Your task to perform on an android device: turn on javascript in the chrome app Image 0: 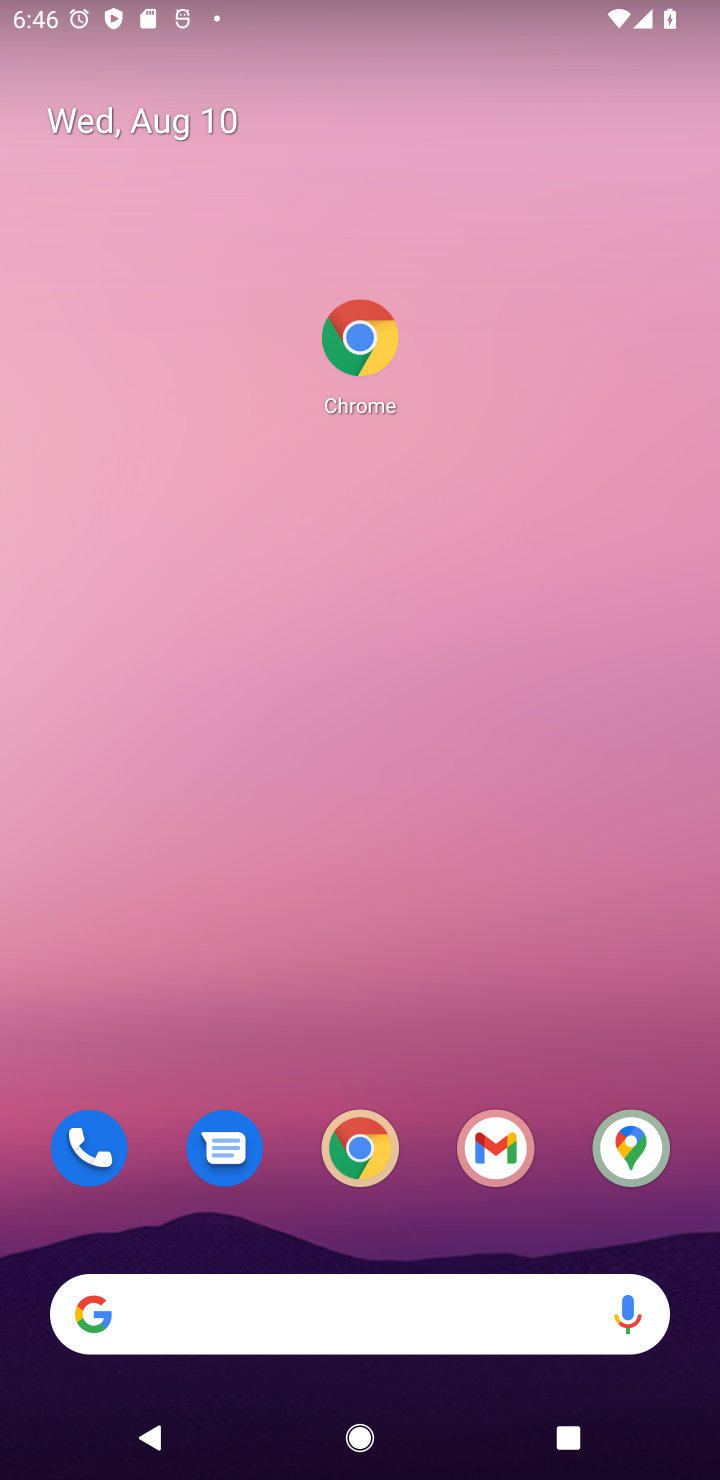
Step 0: click (372, 1136)
Your task to perform on an android device: turn on javascript in the chrome app Image 1: 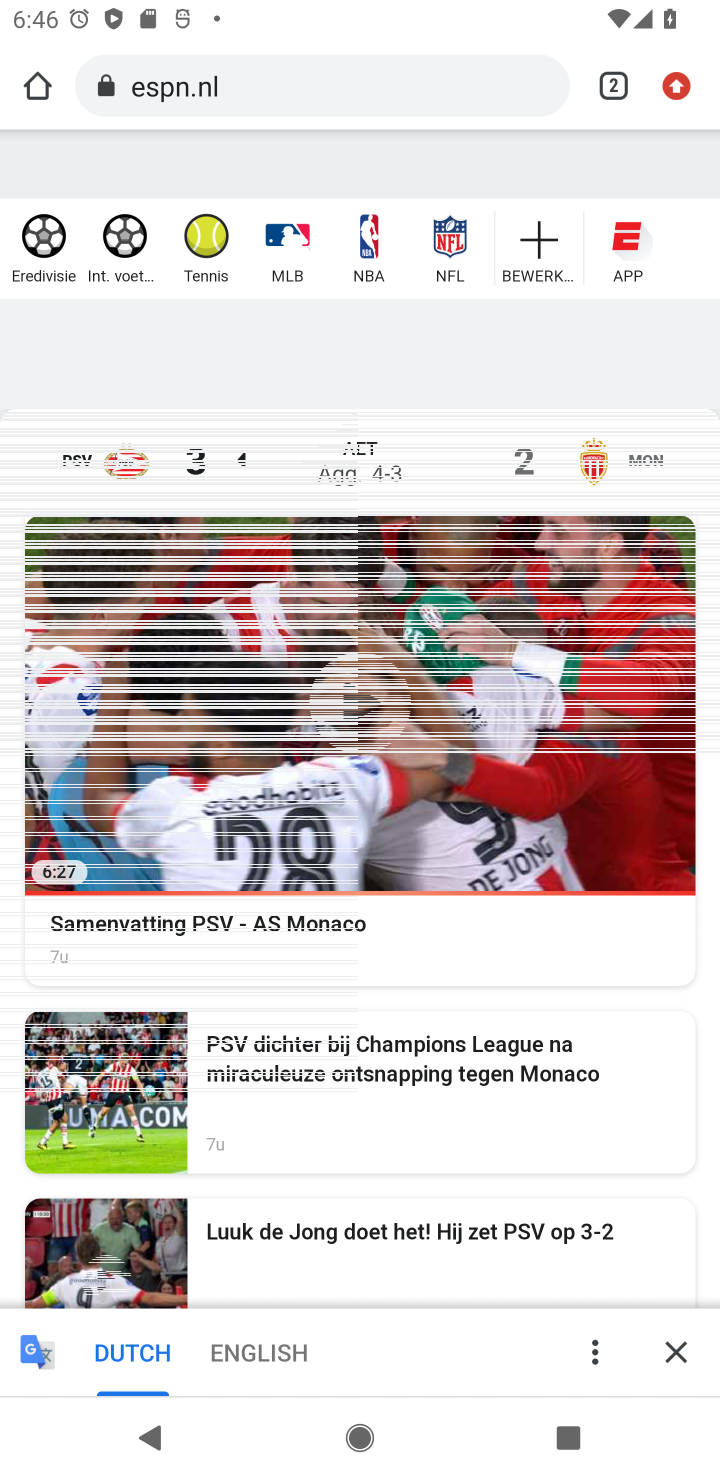
Step 1: click (669, 87)
Your task to perform on an android device: turn on javascript in the chrome app Image 2: 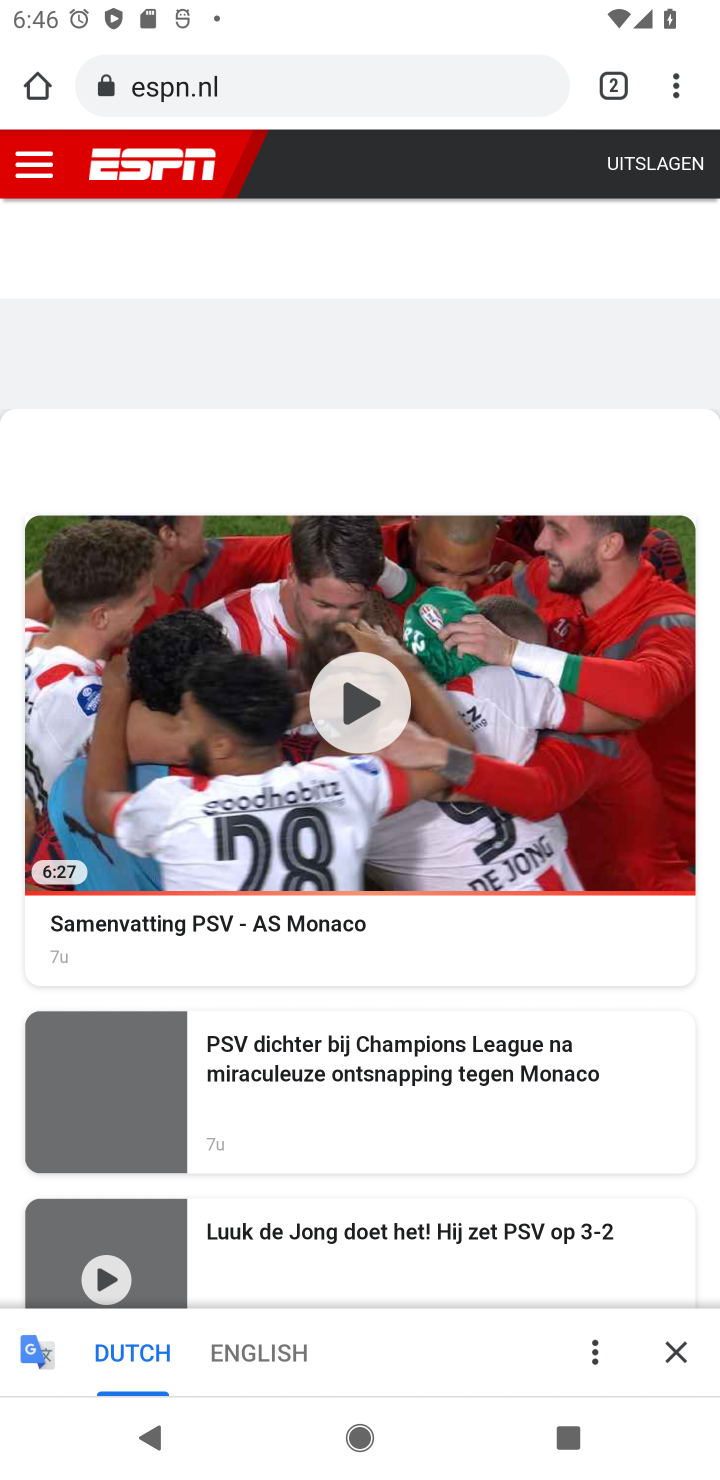
Step 2: click (669, 87)
Your task to perform on an android device: turn on javascript in the chrome app Image 3: 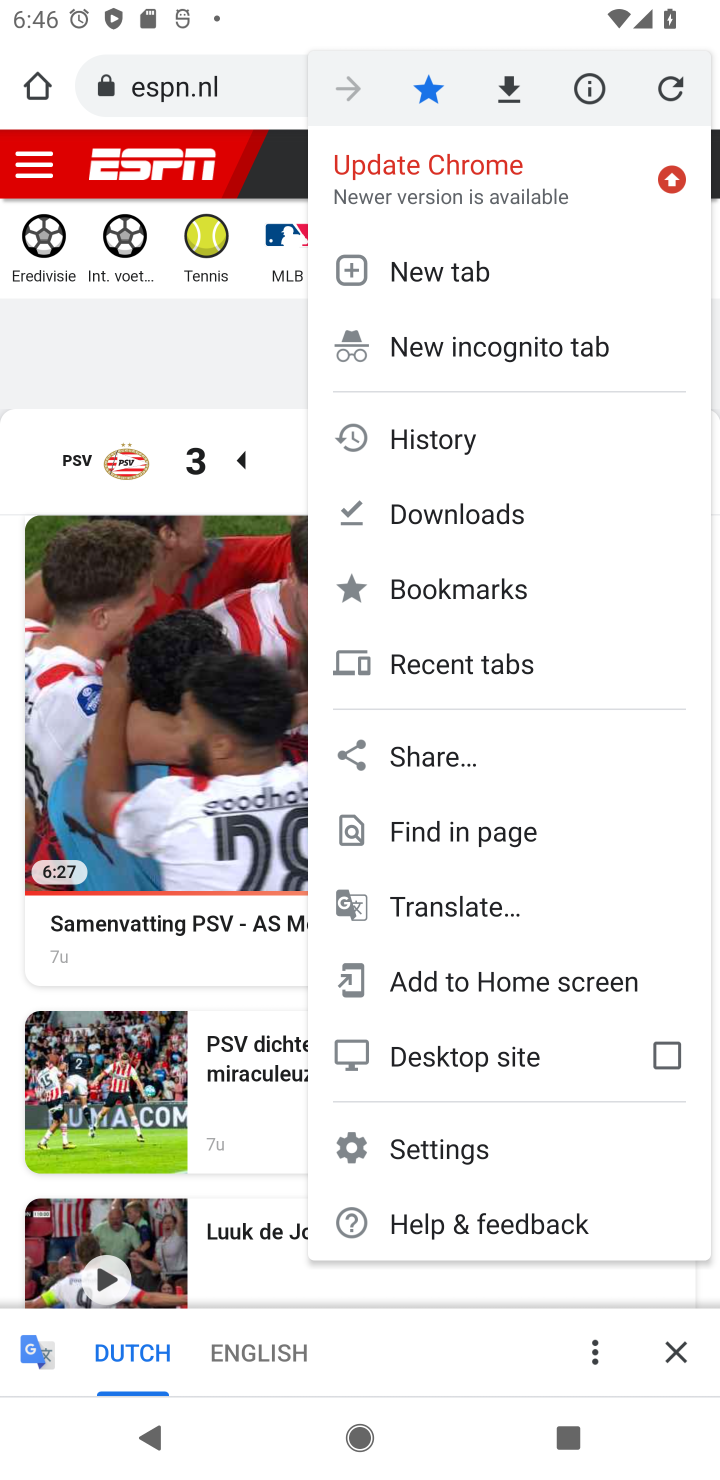
Step 3: click (394, 1139)
Your task to perform on an android device: turn on javascript in the chrome app Image 4: 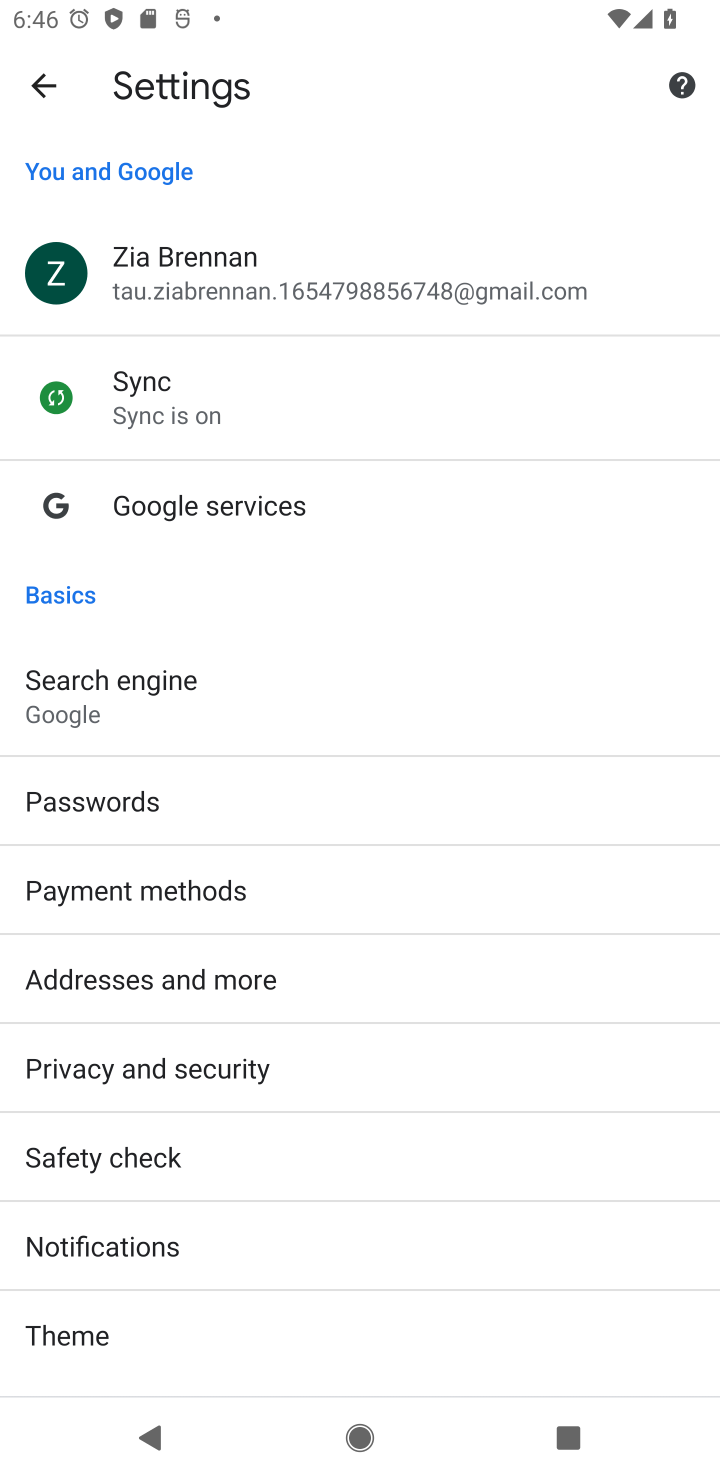
Step 4: drag from (380, 1062) to (472, 292)
Your task to perform on an android device: turn on javascript in the chrome app Image 5: 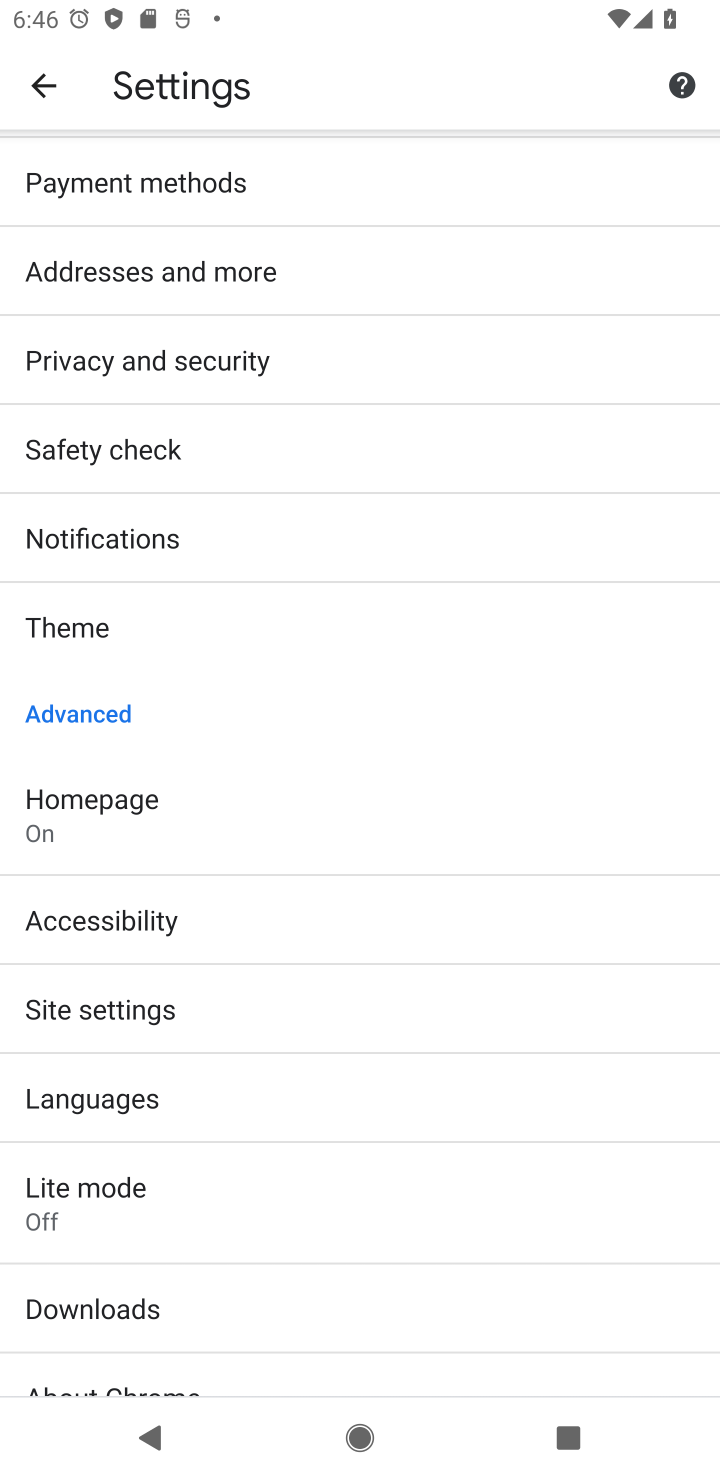
Step 5: click (88, 988)
Your task to perform on an android device: turn on javascript in the chrome app Image 6: 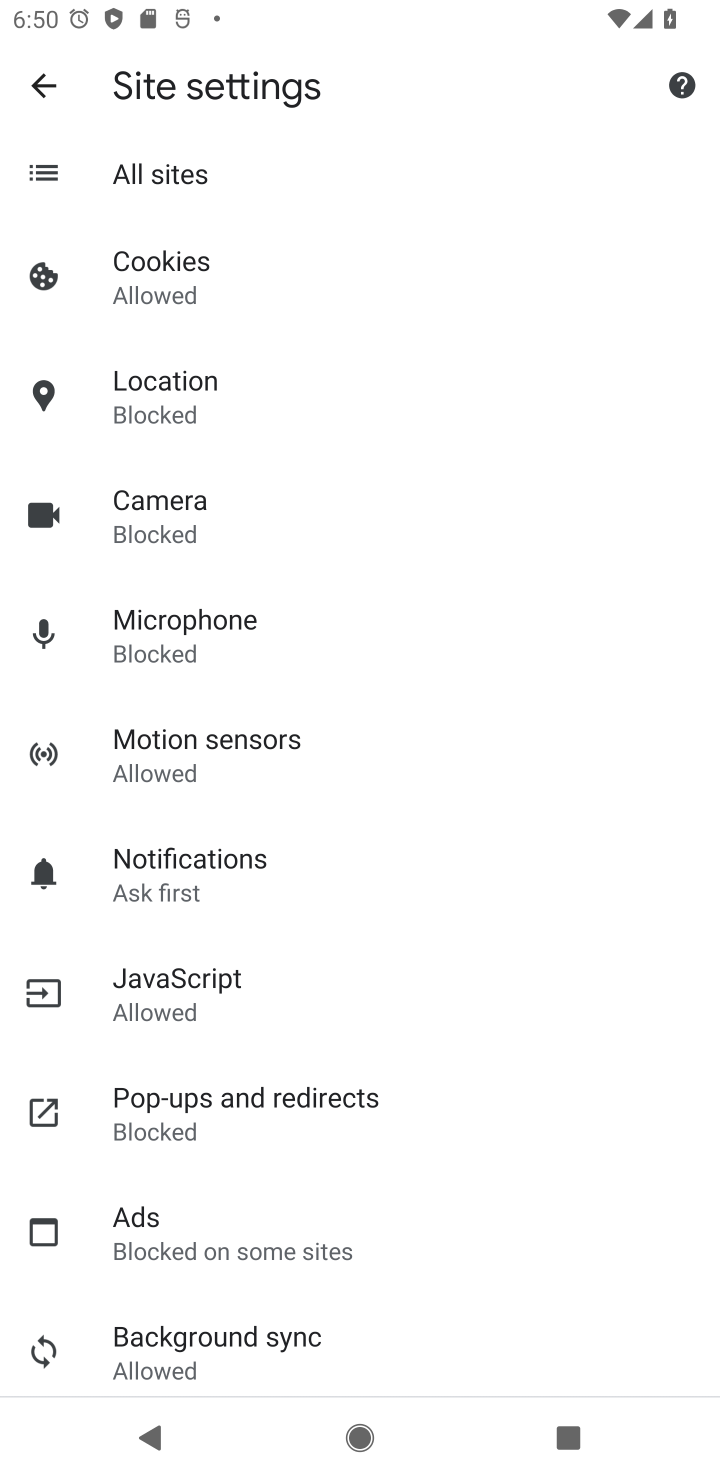
Step 6: task complete